Your task to perform on an android device: Show me recent news Image 0: 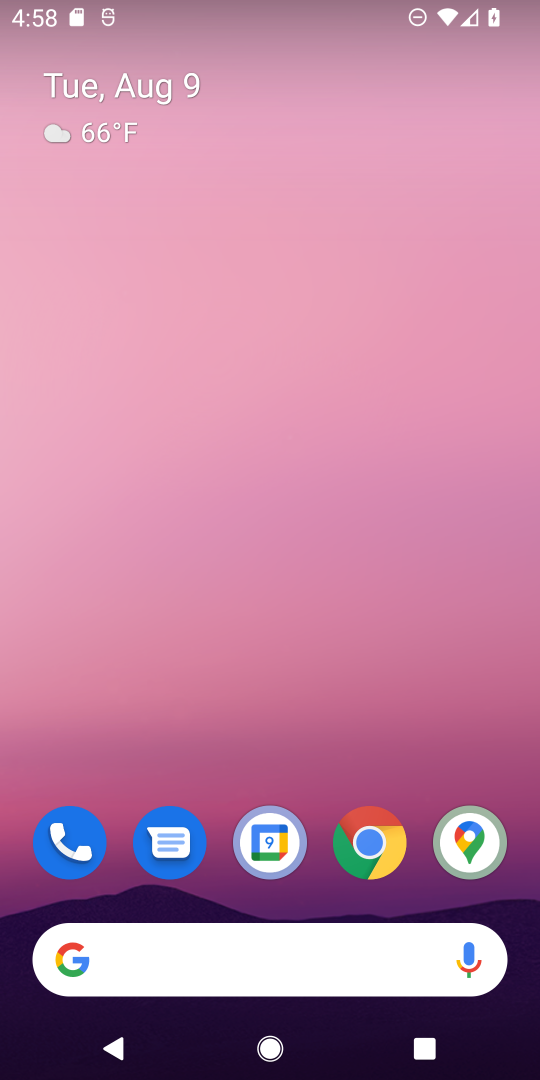
Step 0: drag from (344, 960) to (239, 776)
Your task to perform on an android device: Show me recent news Image 1: 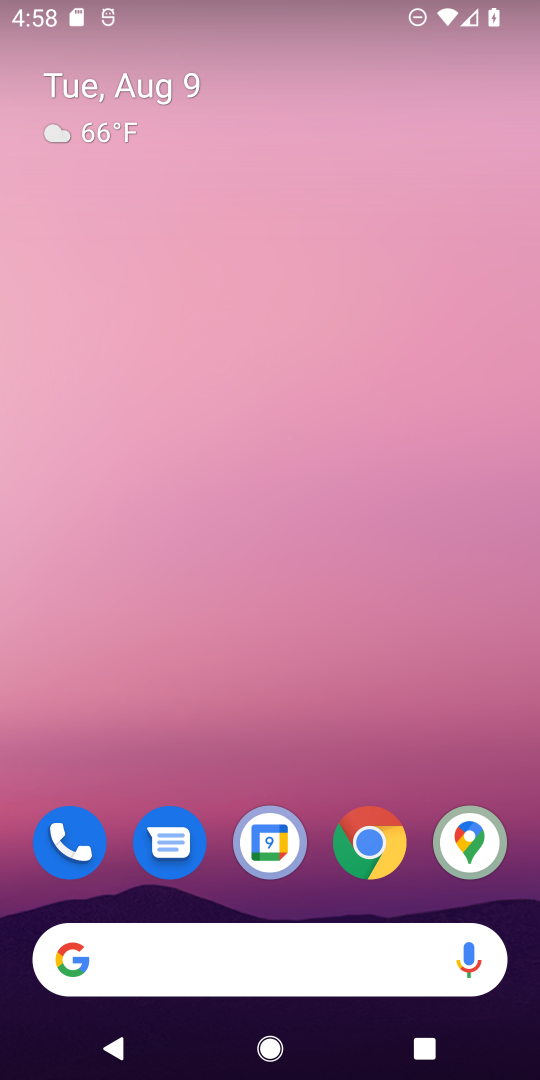
Step 1: drag from (324, 950) to (333, 63)
Your task to perform on an android device: Show me recent news Image 2: 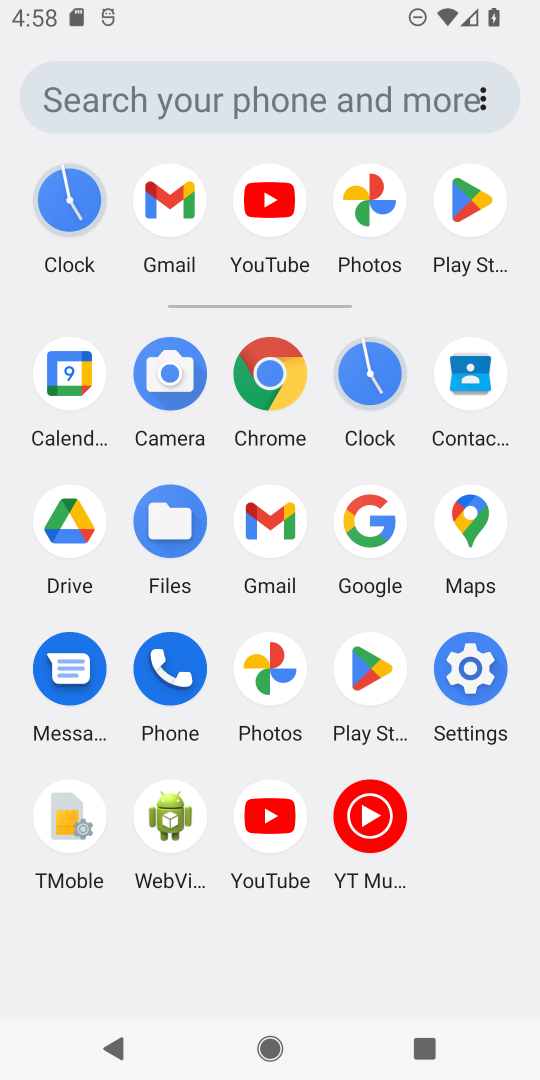
Step 2: click (282, 390)
Your task to perform on an android device: Show me recent news Image 3: 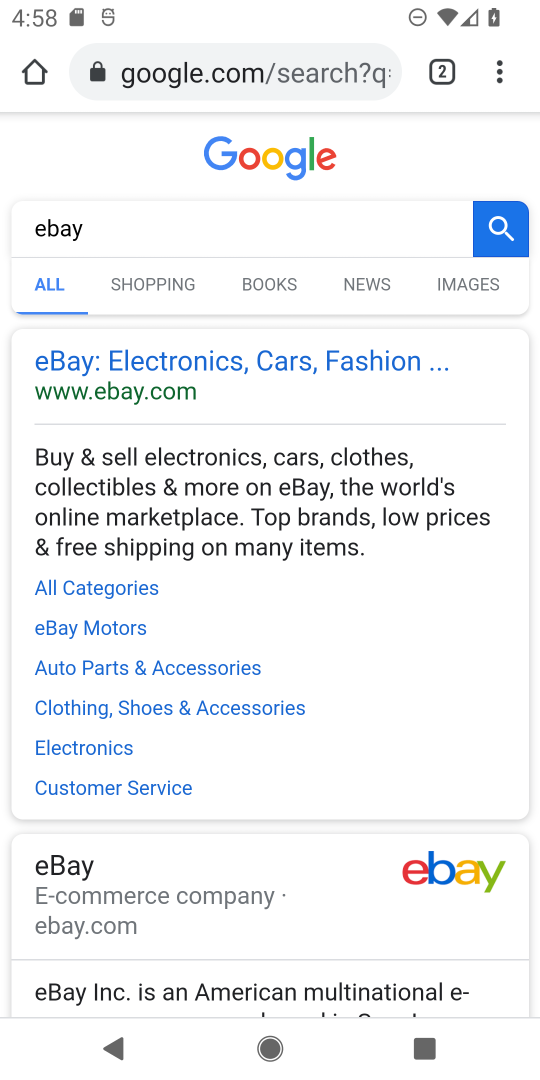
Step 3: click (349, 89)
Your task to perform on an android device: Show me recent news Image 4: 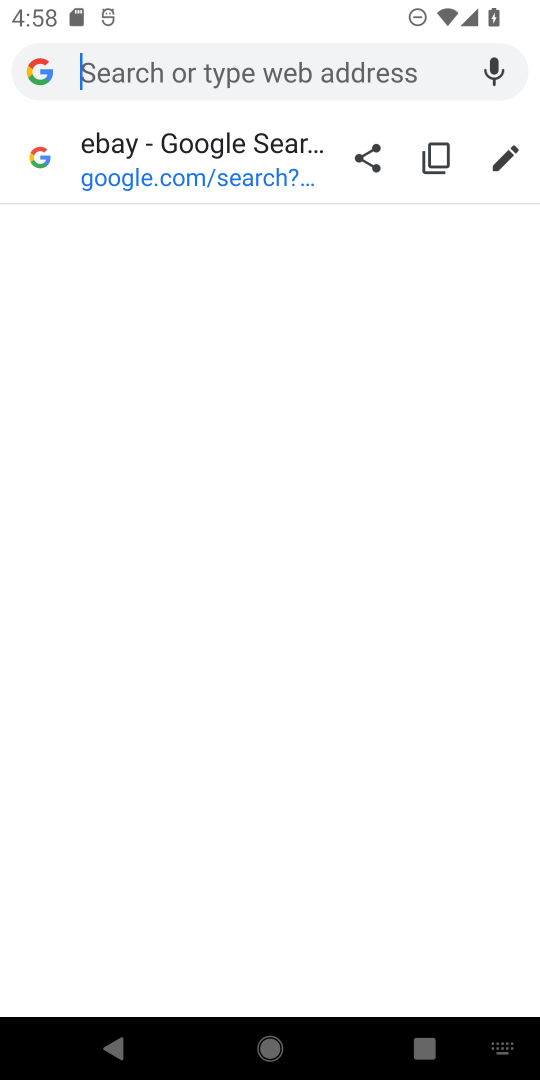
Step 4: type "show me recent news"
Your task to perform on an android device: Show me recent news Image 5: 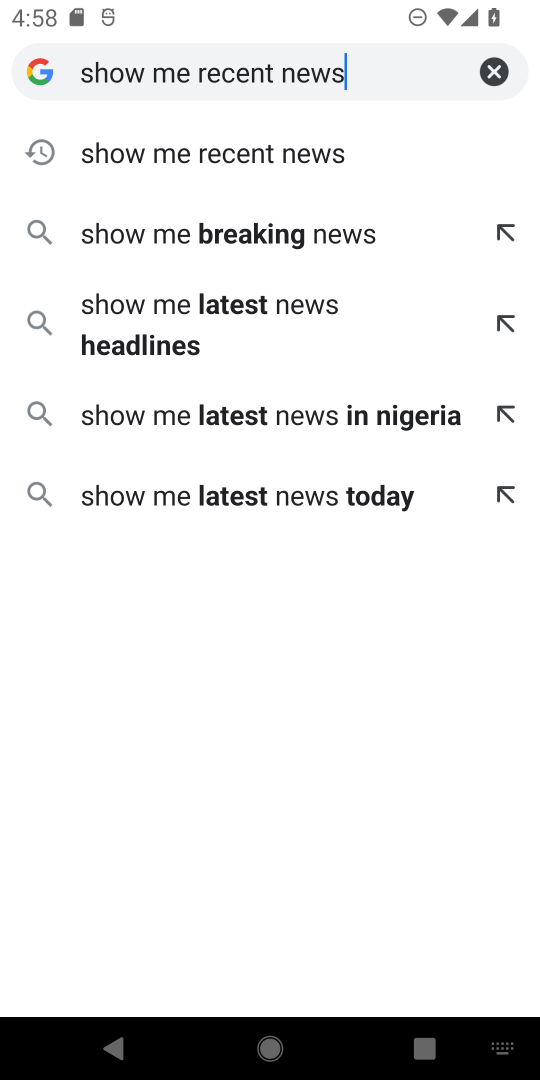
Step 5: click (340, 178)
Your task to perform on an android device: Show me recent news Image 6: 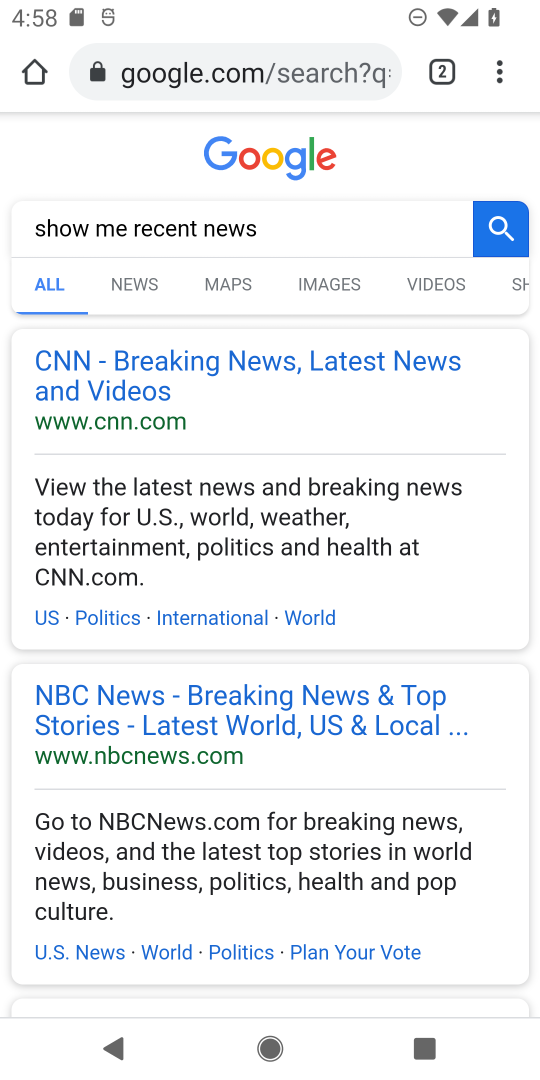
Step 6: task complete